Your task to perform on an android device: Check the news Image 0: 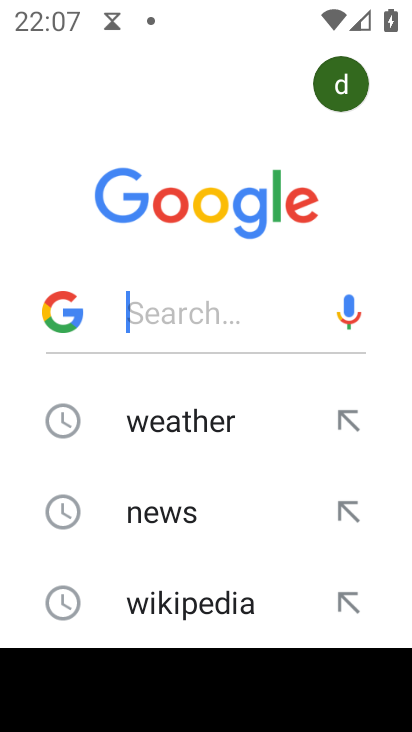
Step 0: press back button
Your task to perform on an android device: Check the news Image 1: 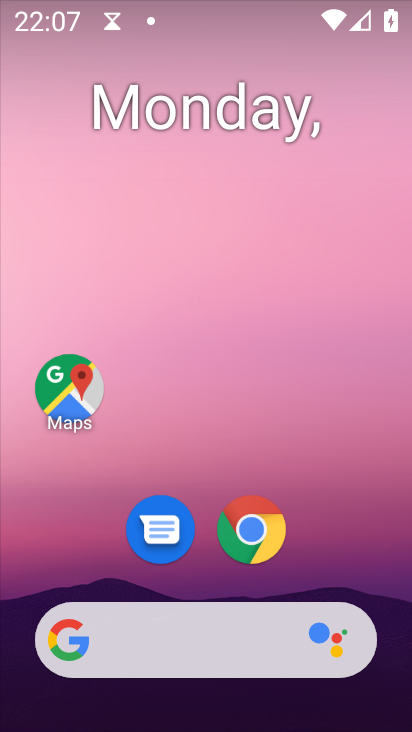
Step 1: drag from (333, 562) to (222, 109)
Your task to perform on an android device: Check the news Image 2: 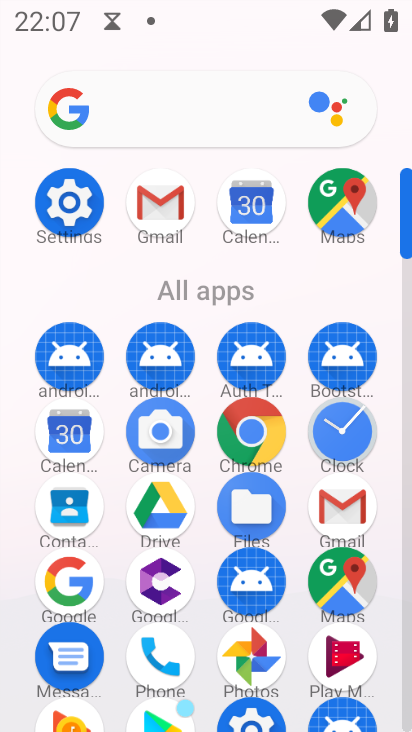
Step 2: click (64, 580)
Your task to perform on an android device: Check the news Image 3: 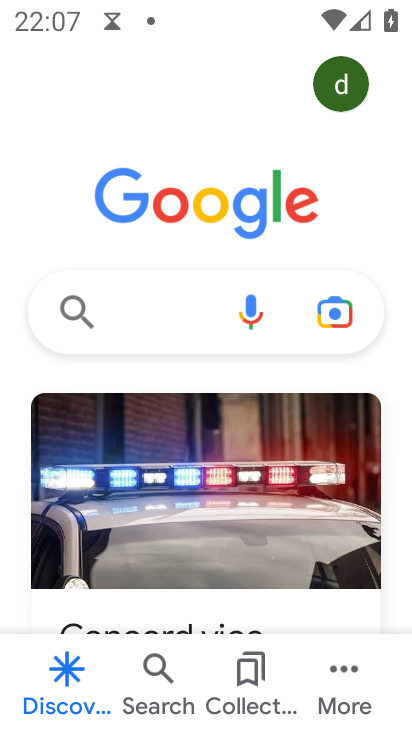
Step 3: click (171, 310)
Your task to perform on an android device: Check the news Image 4: 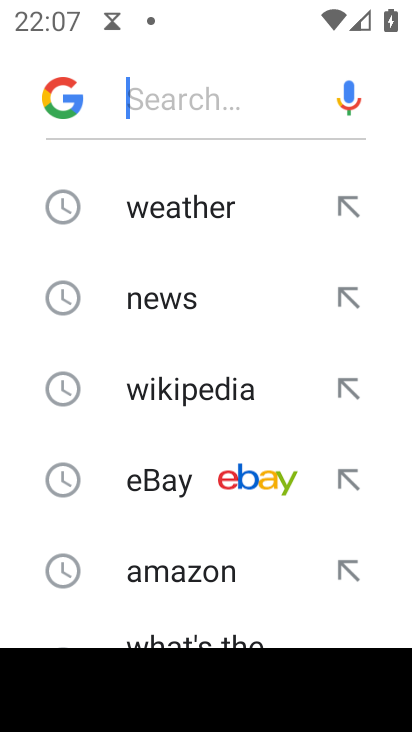
Step 4: type "news"
Your task to perform on an android device: Check the news Image 5: 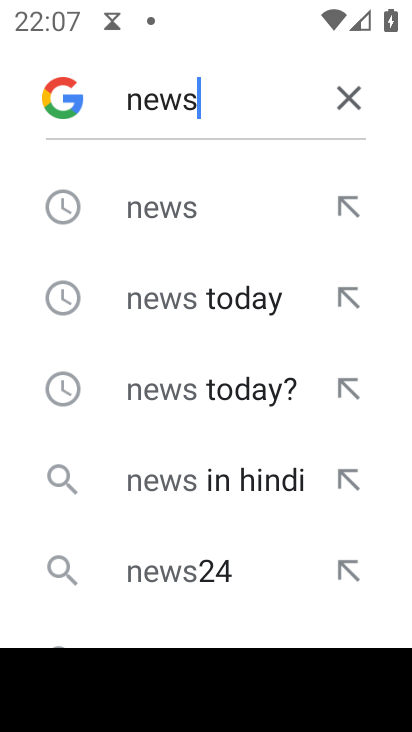
Step 5: click (157, 208)
Your task to perform on an android device: Check the news Image 6: 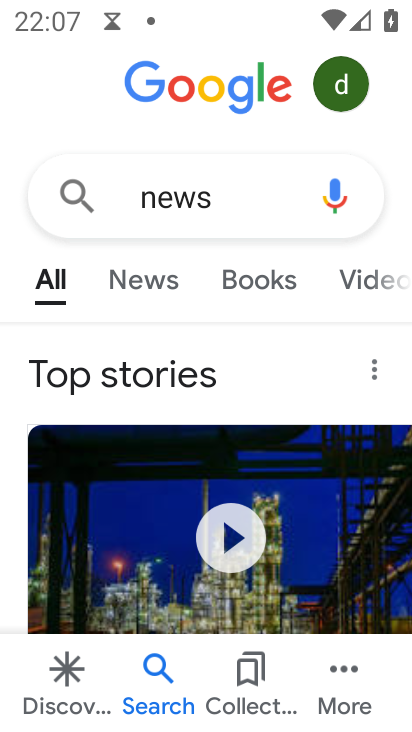
Step 6: drag from (326, 484) to (372, 235)
Your task to perform on an android device: Check the news Image 7: 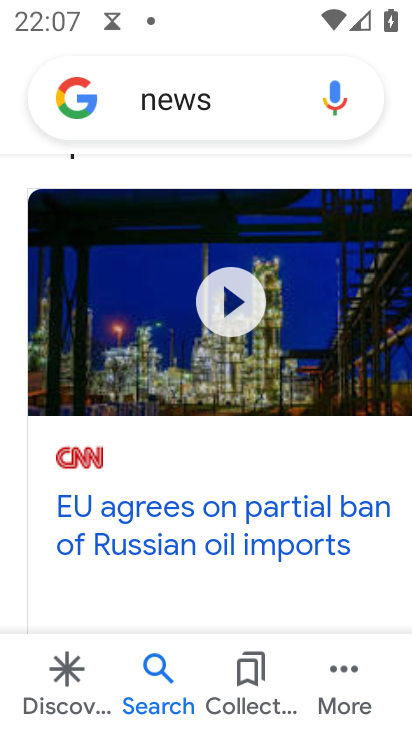
Step 7: click (218, 511)
Your task to perform on an android device: Check the news Image 8: 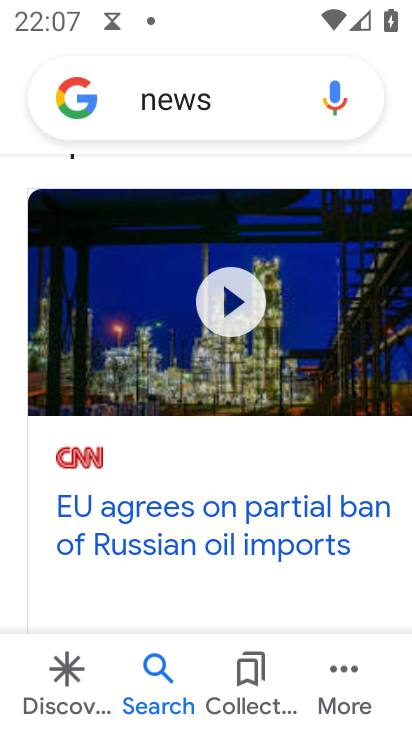
Step 8: click (189, 548)
Your task to perform on an android device: Check the news Image 9: 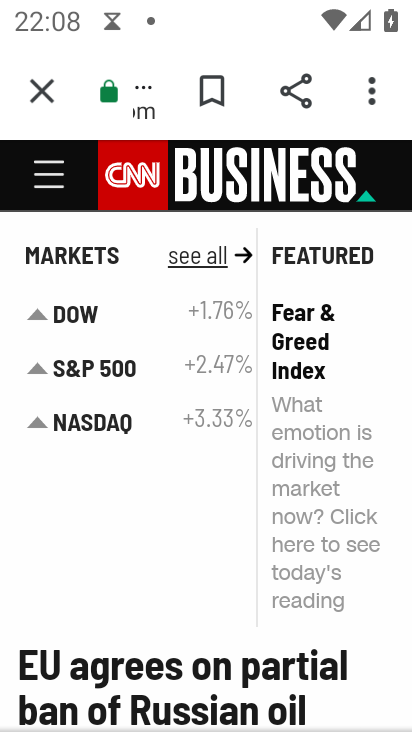
Step 9: task complete